Your task to perform on an android device: open device folders in google photos Image 0: 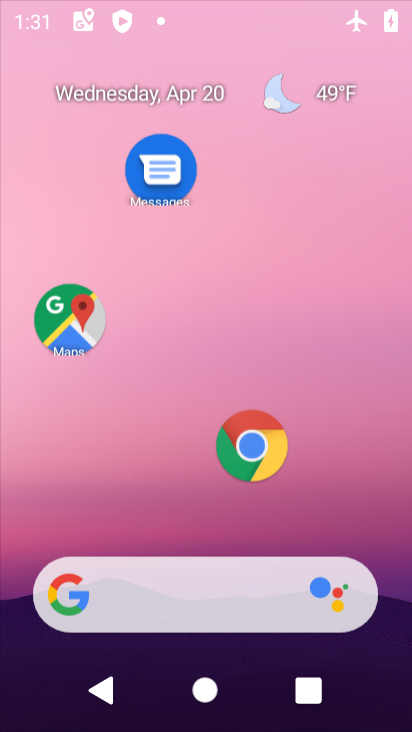
Step 0: click (250, 438)
Your task to perform on an android device: open device folders in google photos Image 1: 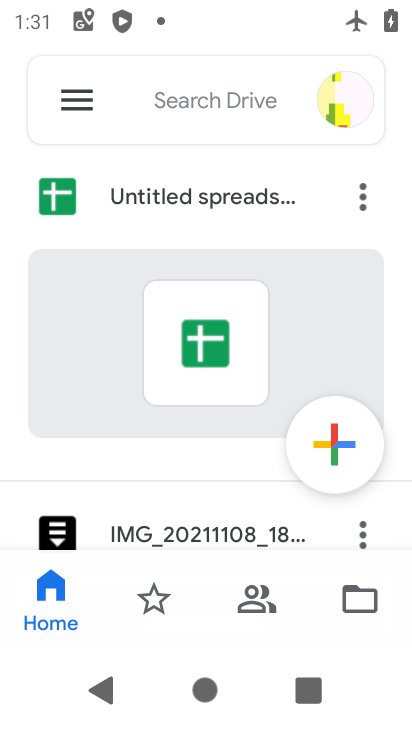
Step 1: press home button
Your task to perform on an android device: open device folders in google photos Image 2: 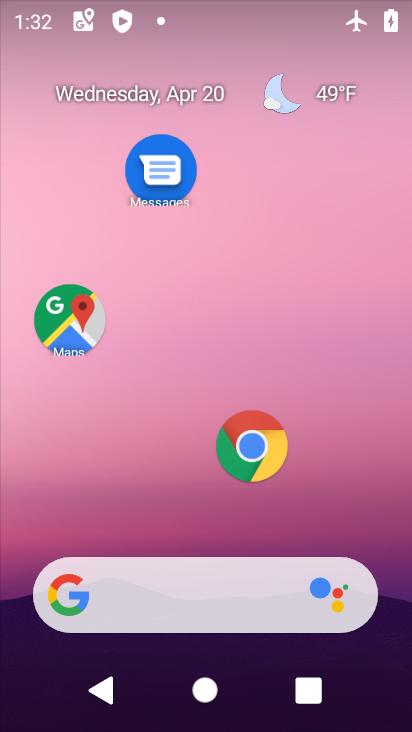
Step 2: drag from (200, 522) to (234, 44)
Your task to perform on an android device: open device folders in google photos Image 3: 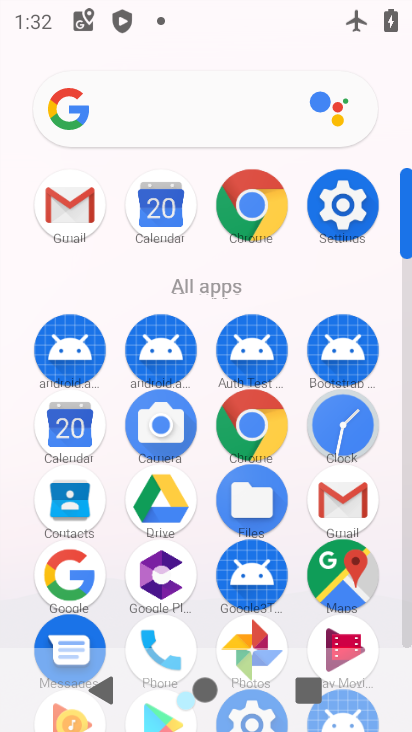
Step 3: click (250, 627)
Your task to perform on an android device: open device folders in google photos Image 4: 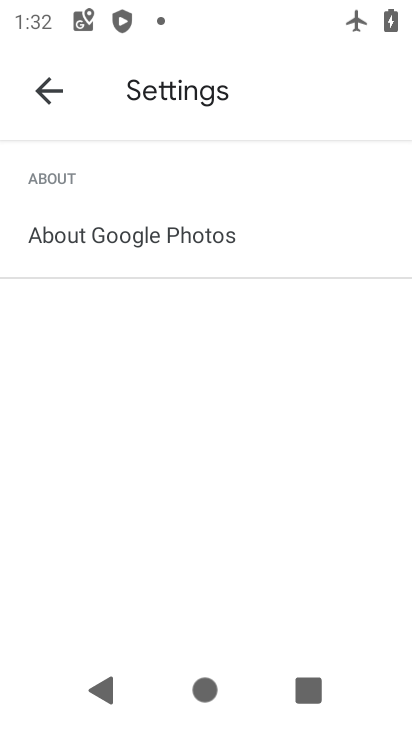
Step 4: click (50, 96)
Your task to perform on an android device: open device folders in google photos Image 5: 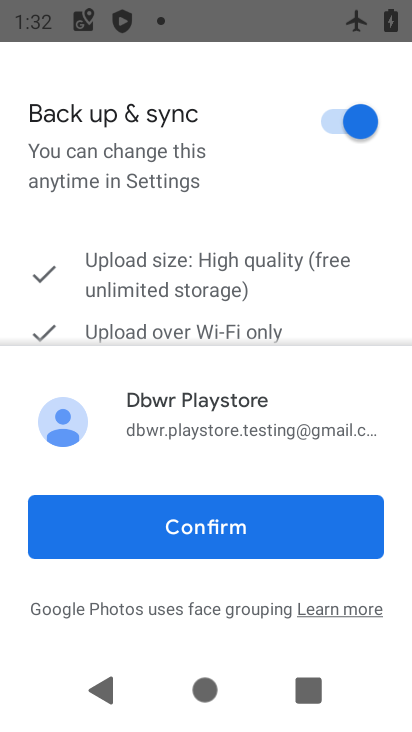
Step 5: click (211, 527)
Your task to perform on an android device: open device folders in google photos Image 6: 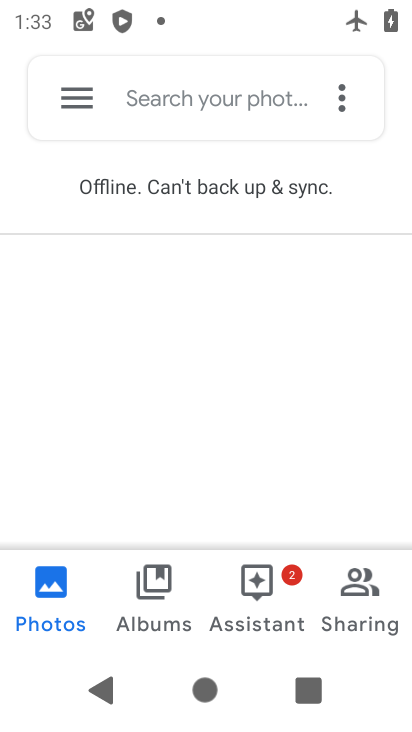
Step 6: click (71, 89)
Your task to perform on an android device: open device folders in google photos Image 7: 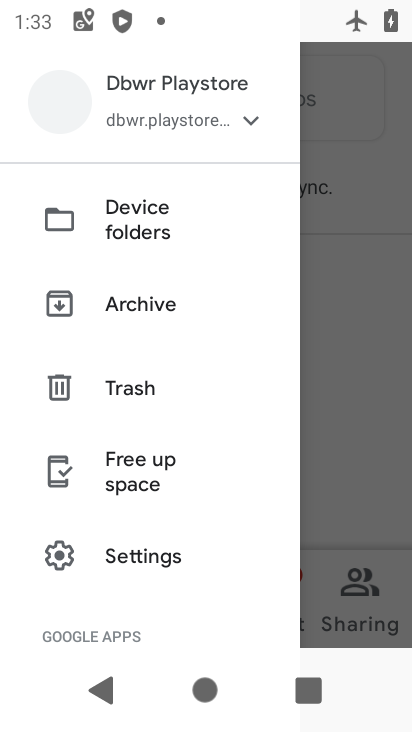
Step 7: click (122, 223)
Your task to perform on an android device: open device folders in google photos Image 8: 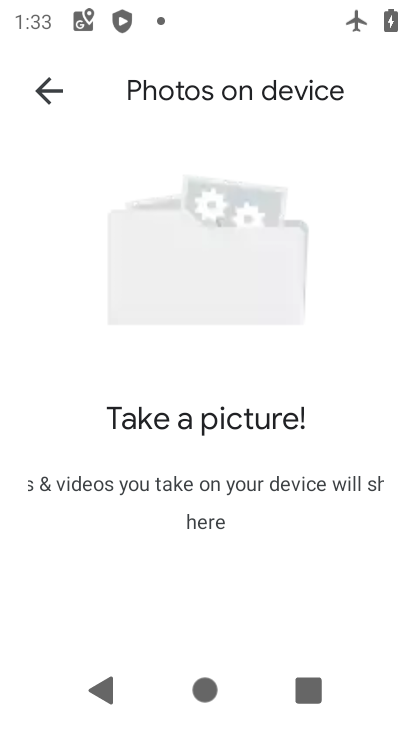
Step 8: task complete